Your task to perform on an android device: Open sound settings Image 0: 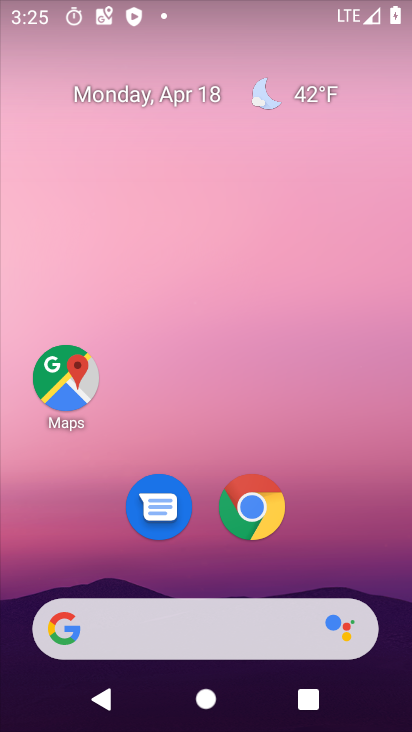
Step 0: drag from (366, 528) to (368, 129)
Your task to perform on an android device: Open sound settings Image 1: 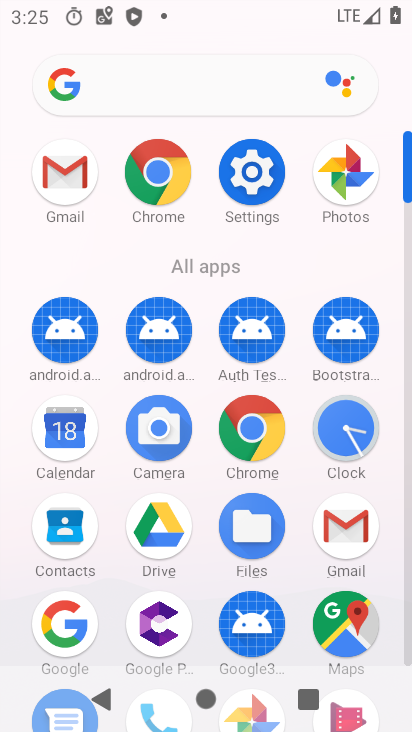
Step 1: click (239, 173)
Your task to perform on an android device: Open sound settings Image 2: 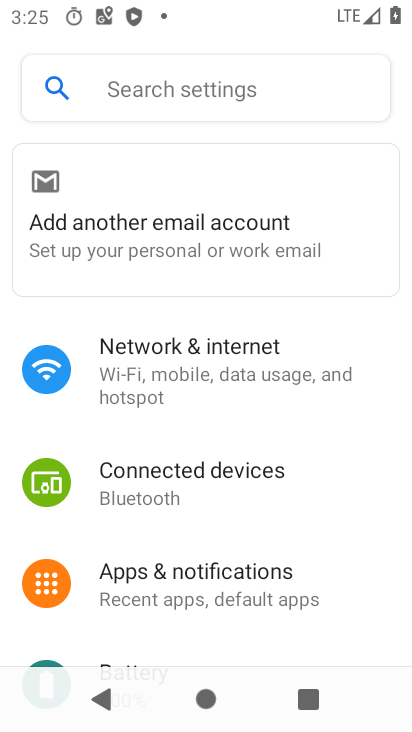
Step 2: drag from (339, 543) to (346, 226)
Your task to perform on an android device: Open sound settings Image 3: 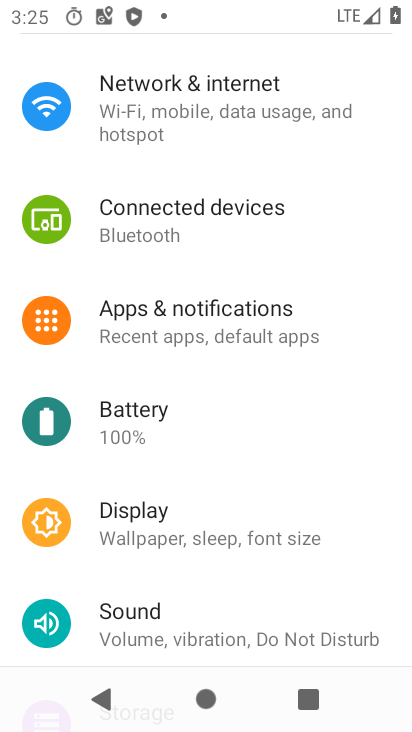
Step 3: click (115, 624)
Your task to perform on an android device: Open sound settings Image 4: 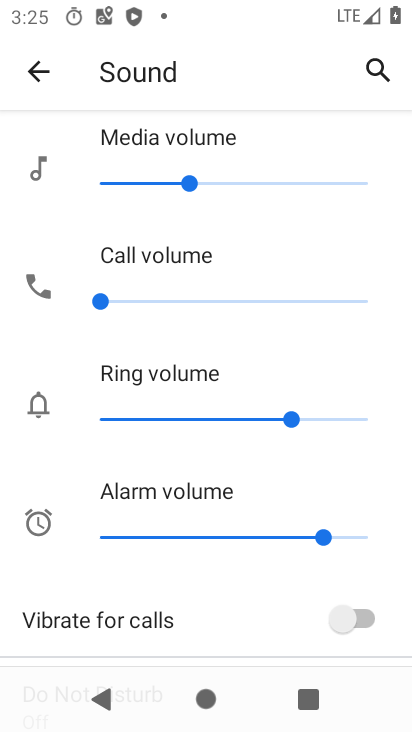
Step 4: task complete